Your task to perform on an android device: set the timer Image 0: 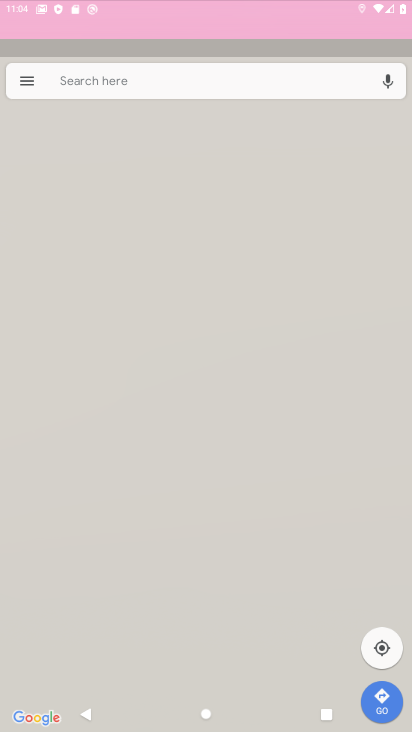
Step 0: click (279, 237)
Your task to perform on an android device: set the timer Image 1: 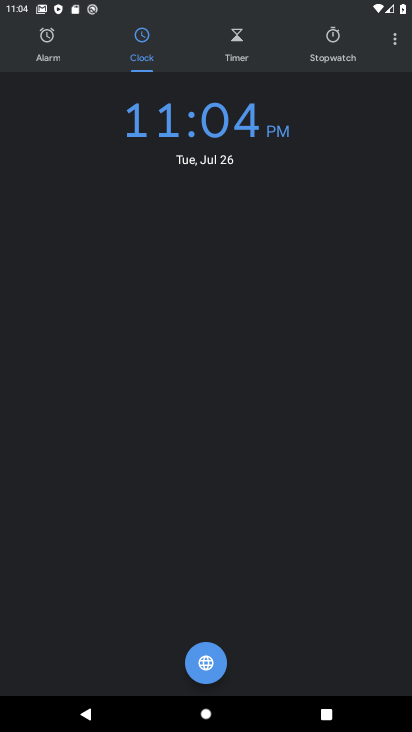
Step 1: press home button
Your task to perform on an android device: set the timer Image 2: 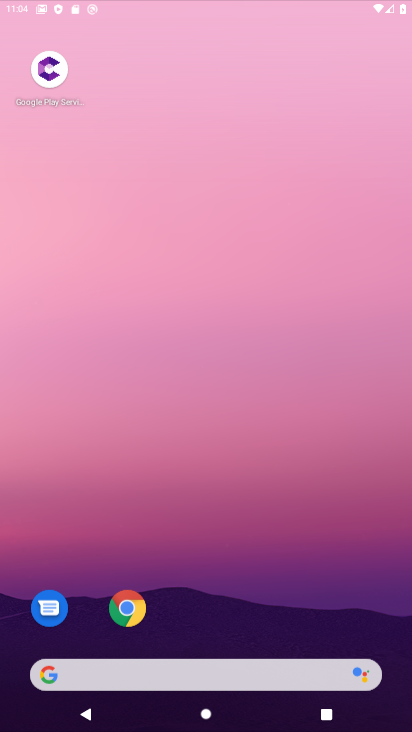
Step 2: drag from (233, 603) to (342, 136)
Your task to perform on an android device: set the timer Image 3: 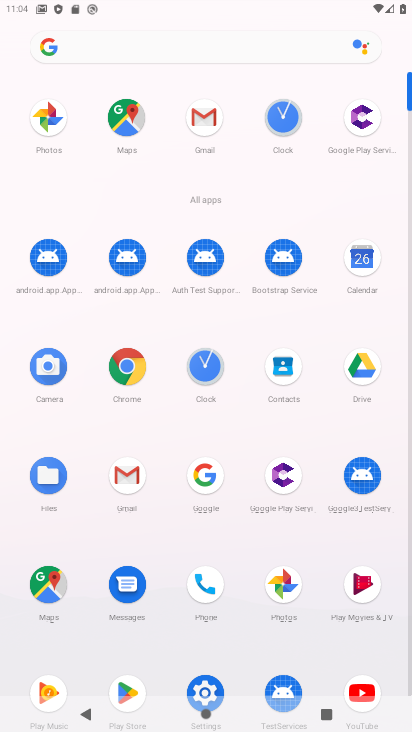
Step 3: click (205, 357)
Your task to perform on an android device: set the timer Image 4: 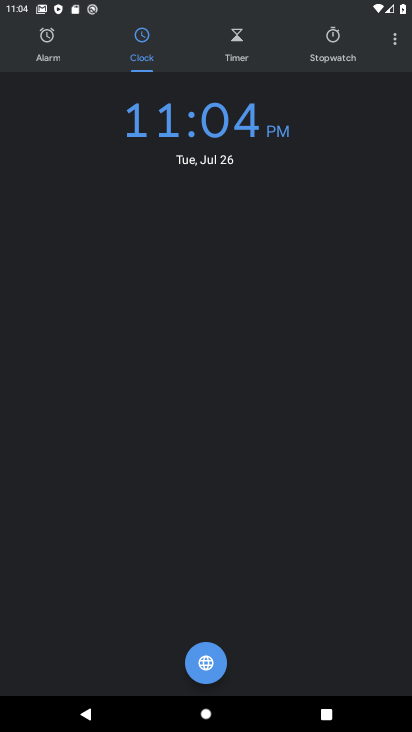
Step 4: click (232, 45)
Your task to perform on an android device: set the timer Image 5: 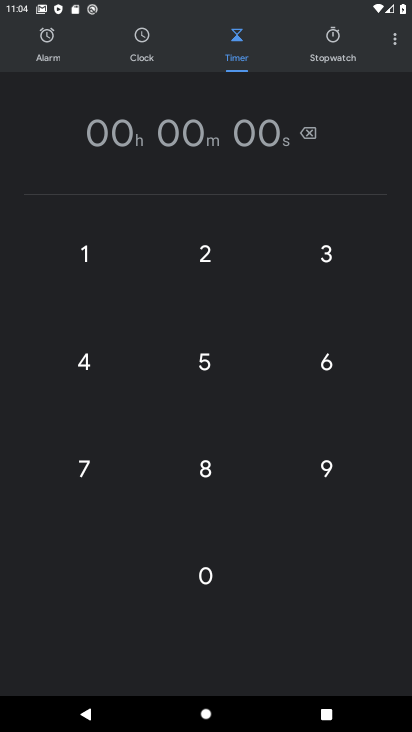
Step 5: click (193, 250)
Your task to perform on an android device: set the timer Image 6: 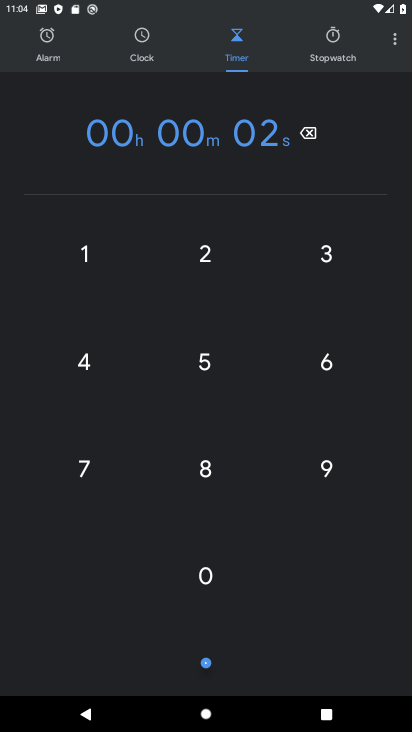
Step 6: click (325, 256)
Your task to perform on an android device: set the timer Image 7: 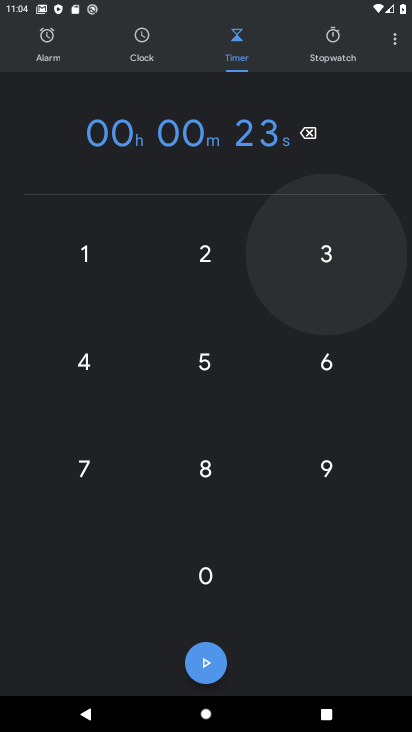
Step 7: click (209, 344)
Your task to perform on an android device: set the timer Image 8: 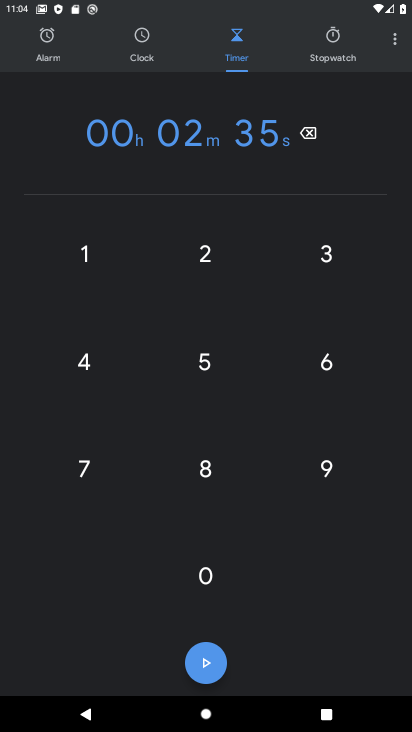
Step 8: click (207, 662)
Your task to perform on an android device: set the timer Image 9: 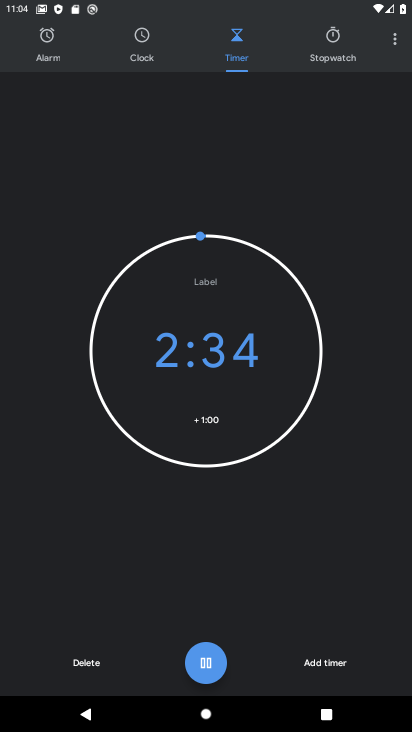
Step 9: task complete